Your task to perform on an android device: check the backup settings in the google photos Image 0: 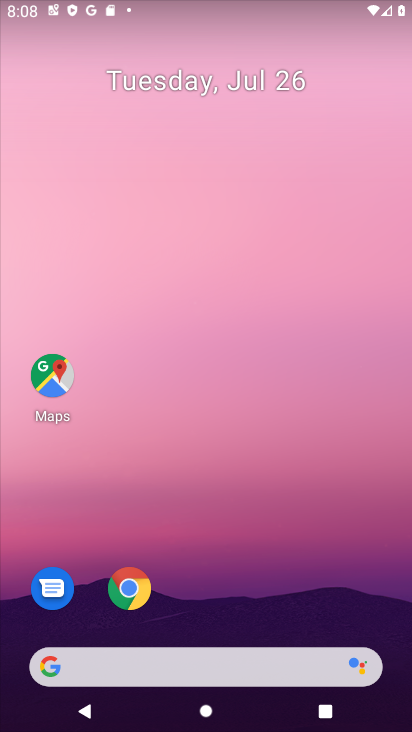
Step 0: press home button
Your task to perform on an android device: check the backup settings in the google photos Image 1: 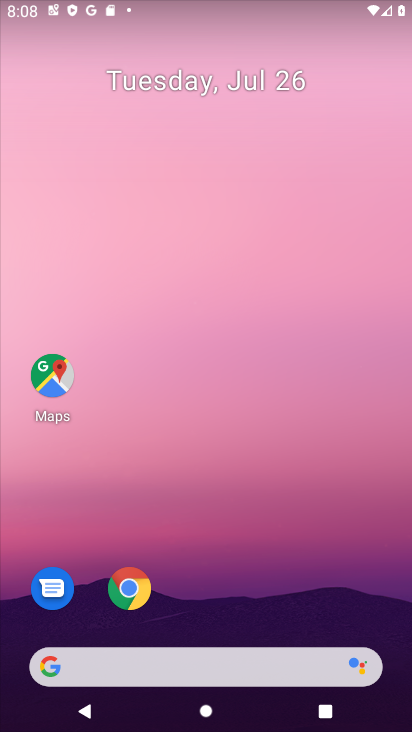
Step 1: drag from (261, 472) to (227, 46)
Your task to perform on an android device: check the backup settings in the google photos Image 2: 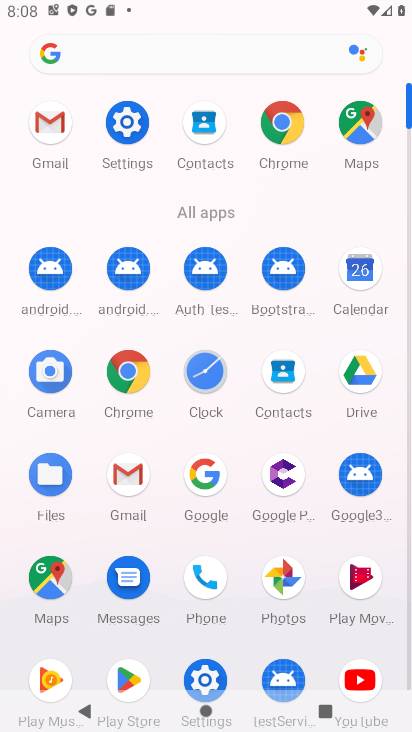
Step 2: click (278, 575)
Your task to perform on an android device: check the backup settings in the google photos Image 3: 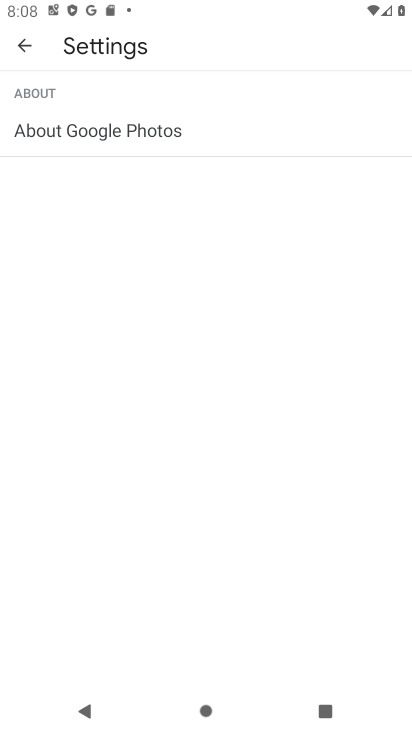
Step 3: click (27, 43)
Your task to perform on an android device: check the backup settings in the google photos Image 4: 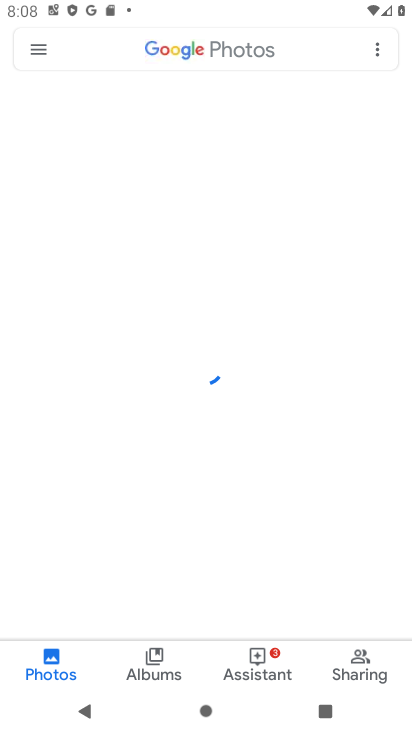
Step 4: click (40, 49)
Your task to perform on an android device: check the backup settings in the google photos Image 5: 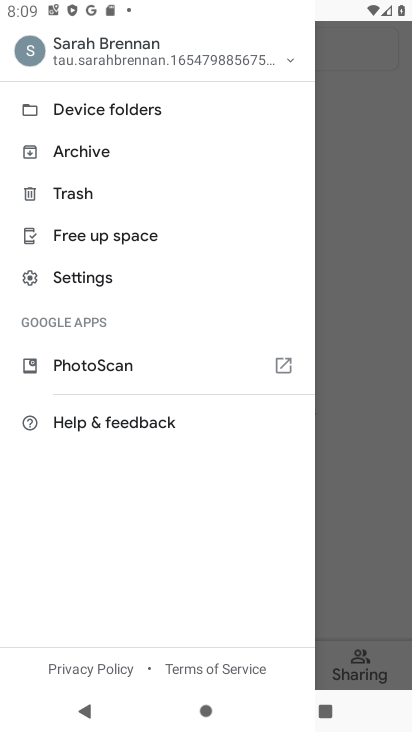
Step 5: click (95, 279)
Your task to perform on an android device: check the backup settings in the google photos Image 6: 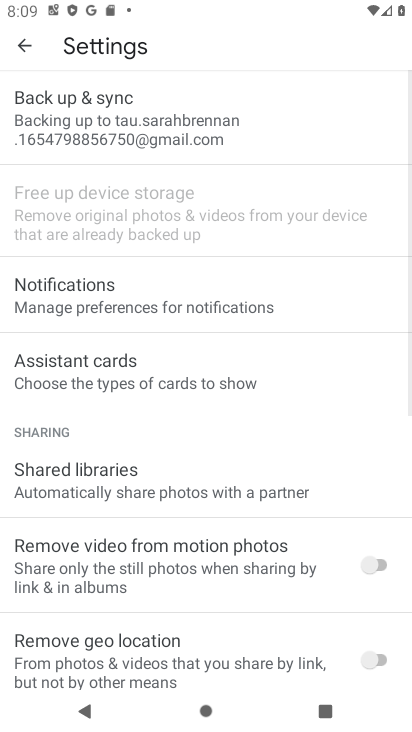
Step 6: click (125, 115)
Your task to perform on an android device: check the backup settings in the google photos Image 7: 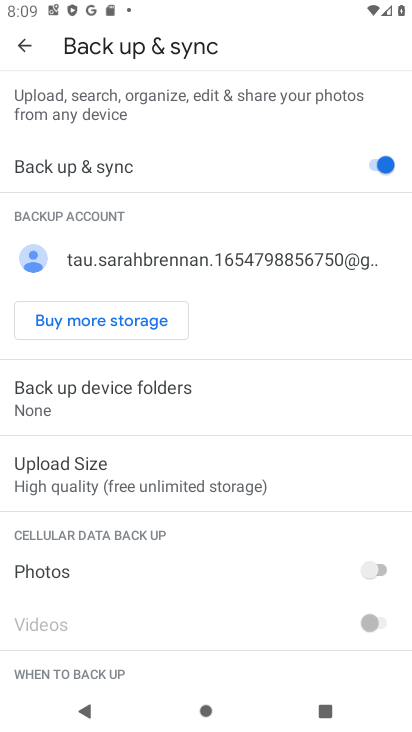
Step 7: task complete